Your task to perform on an android device: Open settings on Google Maps Image 0: 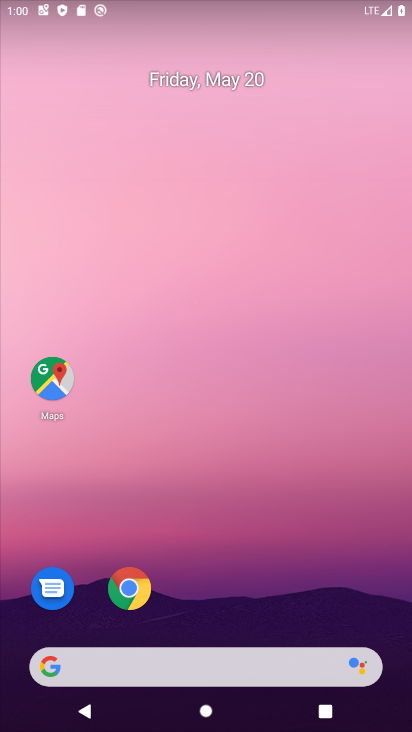
Step 0: click (51, 378)
Your task to perform on an android device: Open settings on Google Maps Image 1: 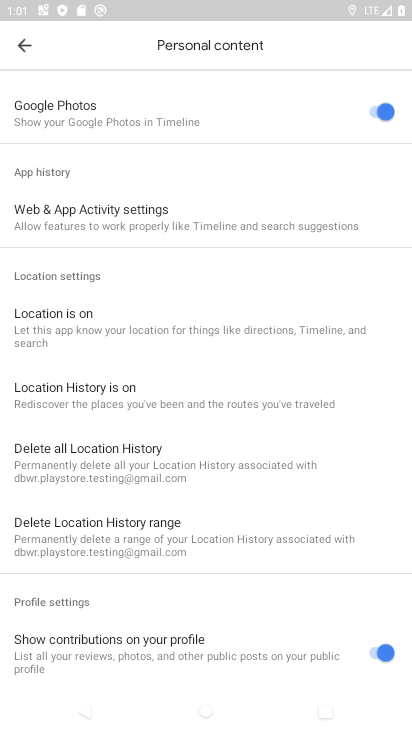
Step 1: task complete